Your task to perform on an android device: Show me productivity apps on the Play Store Image 0: 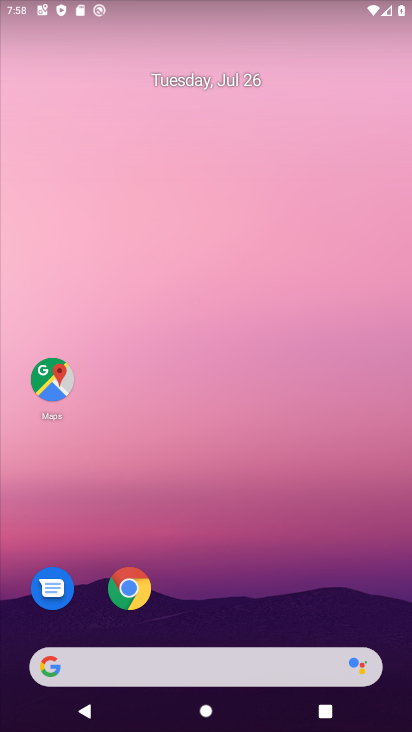
Step 0: drag from (252, 588) to (269, 190)
Your task to perform on an android device: Show me productivity apps on the Play Store Image 1: 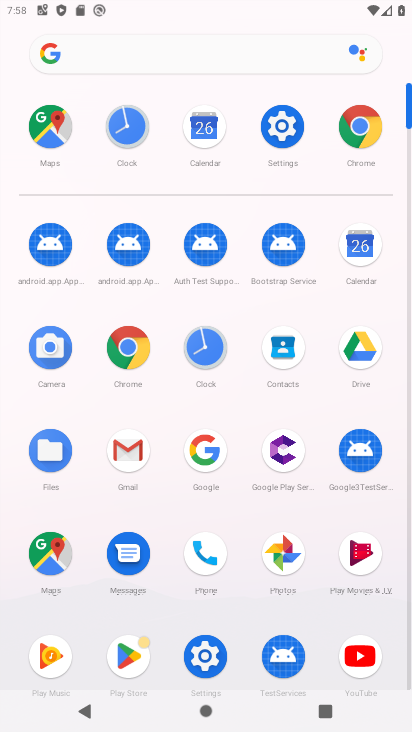
Step 1: click (127, 655)
Your task to perform on an android device: Show me productivity apps on the Play Store Image 2: 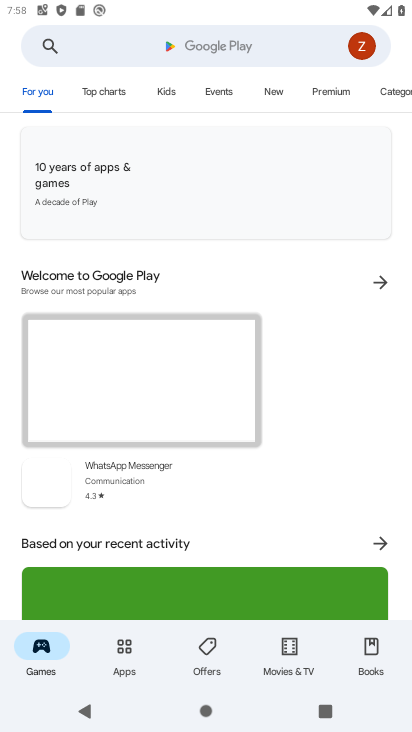
Step 2: task complete